Your task to perform on an android device: toggle translation in the chrome app Image 0: 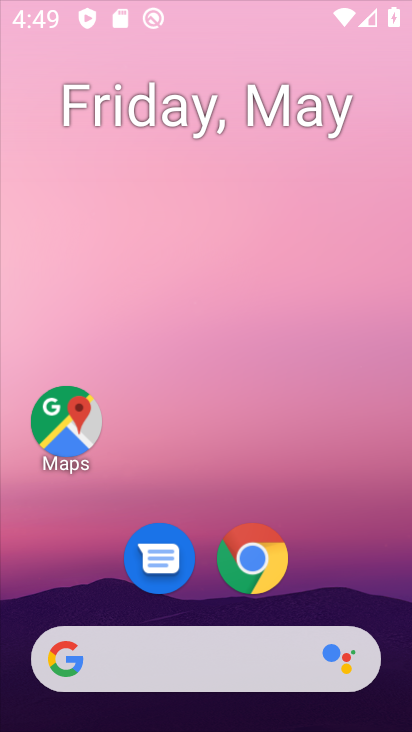
Step 0: drag from (394, 603) to (317, 264)
Your task to perform on an android device: toggle translation in the chrome app Image 1: 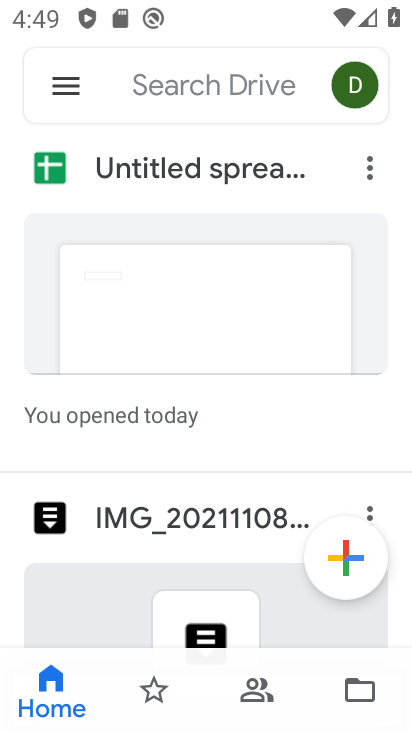
Step 1: press home button
Your task to perform on an android device: toggle translation in the chrome app Image 2: 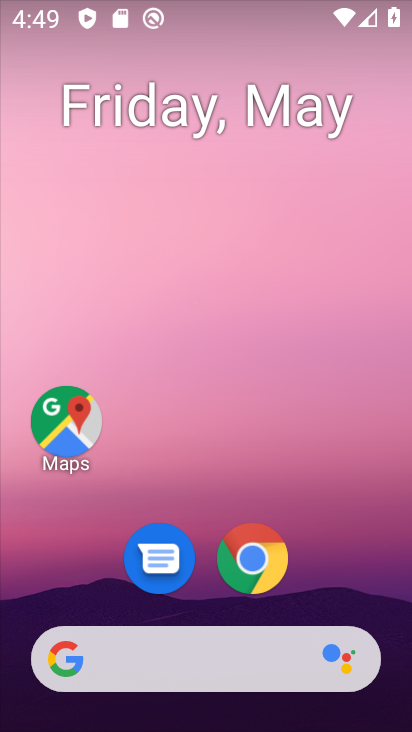
Step 2: click (272, 563)
Your task to perform on an android device: toggle translation in the chrome app Image 3: 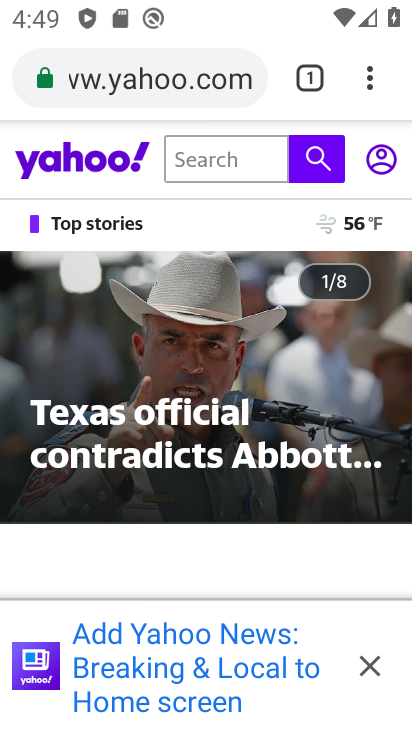
Step 3: click (377, 89)
Your task to perform on an android device: toggle translation in the chrome app Image 4: 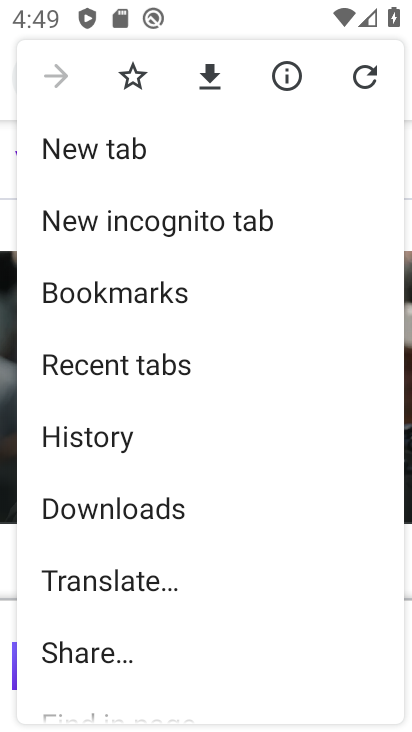
Step 4: drag from (197, 632) to (175, 223)
Your task to perform on an android device: toggle translation in the chrome app Image 5: 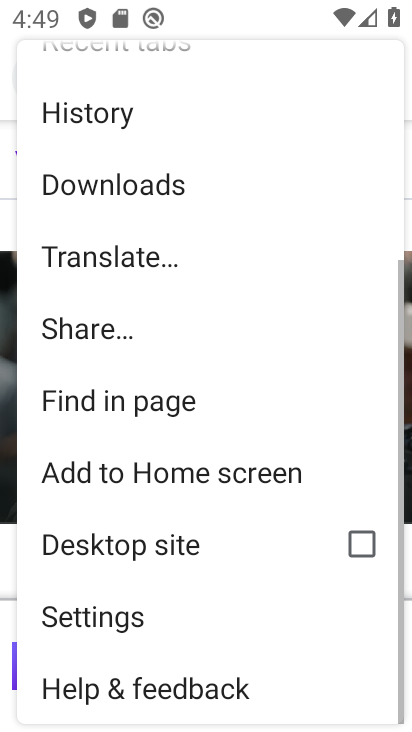
Step 5: click (150, 616)
Your task to perform on an android device: toggle translation in the chrome app Image 6: 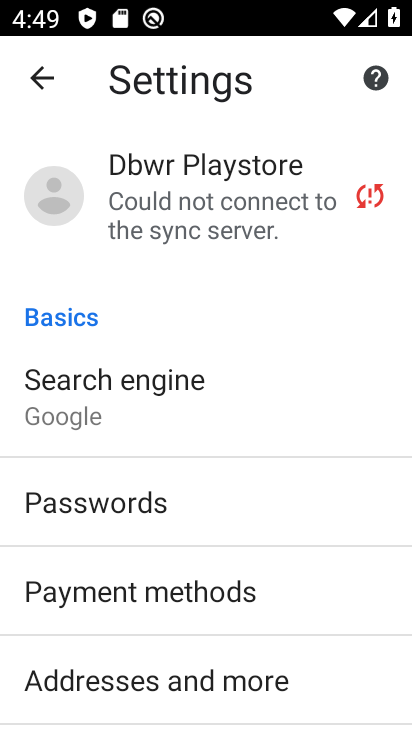
Step 6: drag from (172, 641) to (156, 132)
Your task to perform on an android device: toggle translation in the chrome app Image 7: 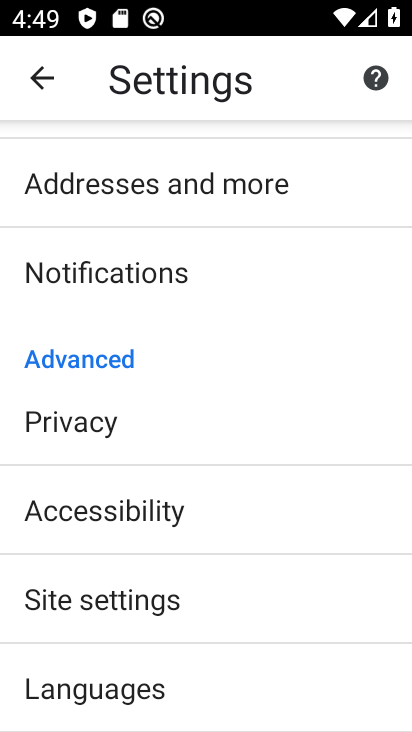
Step 7: click (201, 689)
Your task to perform on an android device: toggle translation in the chrome app Image 8: 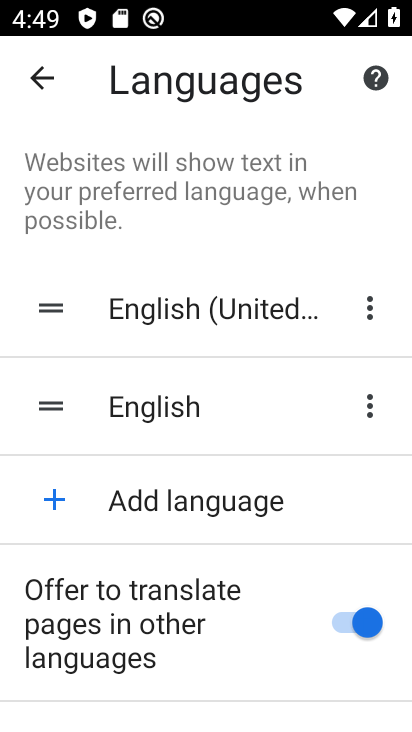
Step 8: click (349, 633)
Your task to perform on an android device: toggle translation in the chrome app Image 9: 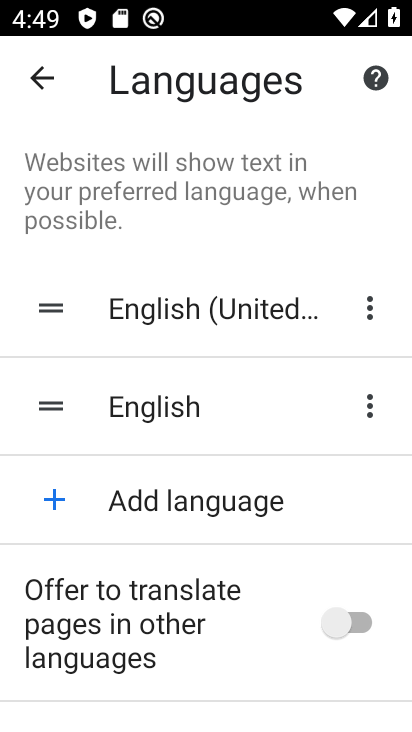
Step 9: task complete